Your task to perform on an android device: turn off translation in the chrome app Image 0: 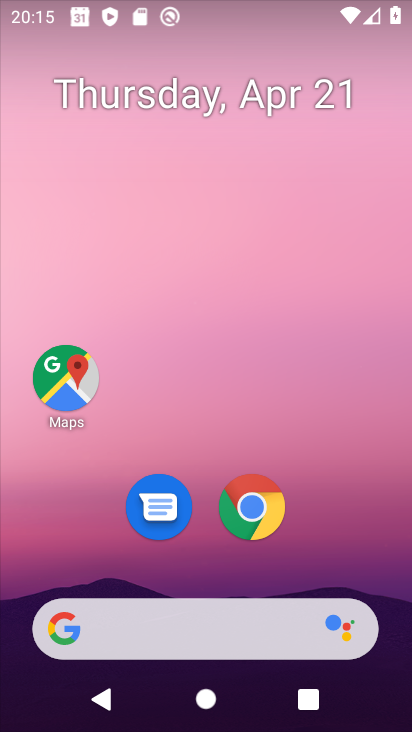
Step 0: click (265, 498)
Your task to perform on an android device: turn off translation in the chrome app Image 1: 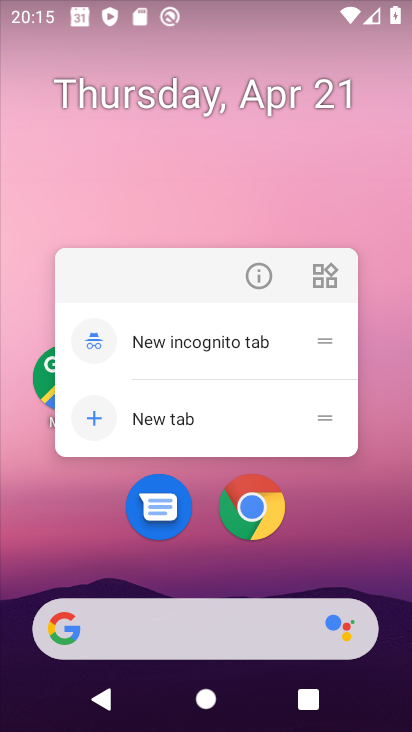
Step 1: click (263, 507)
Your task to perform on an android device: turn off translation in the chrome app Image 2: 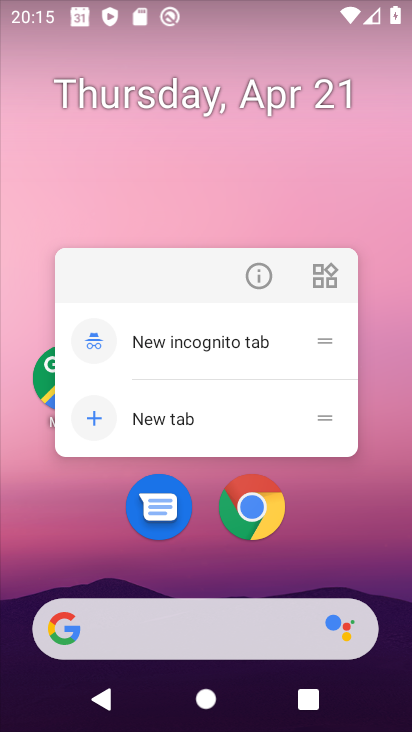
Step 2: click (256, 506)
Your task to perform on an android device: turn off translation in the chrome app Image 3: 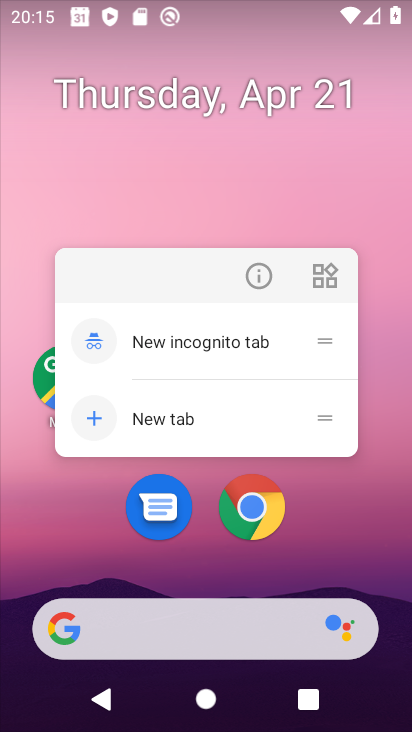
Step 3: click (250, 505)
Your task to perform on an android device: turn off translation in the chrome app Image 4: 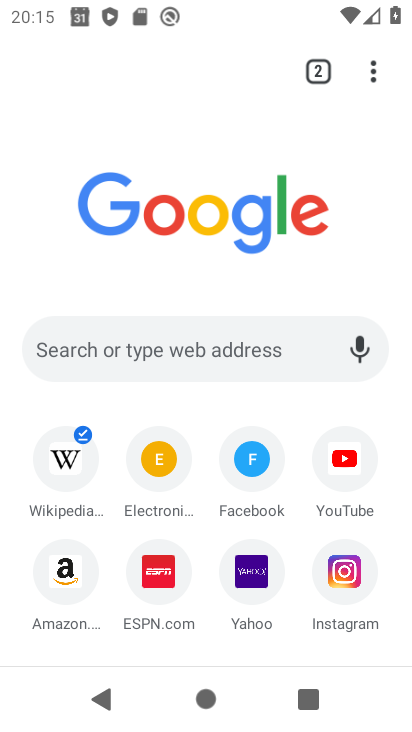
Step 4: click (373, 76)
Your task to perform on an android device: turn off translation in the chrome app Image 5: 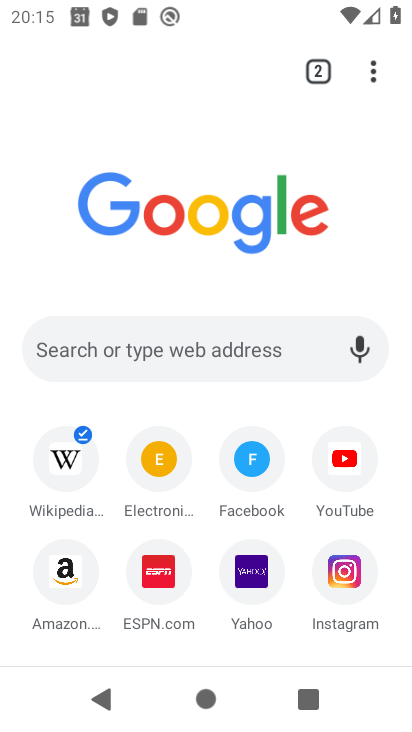
Step 5: drag from (375, 59) to (145, 497)
Your task to perform on an android device: turn off translation in the chrome app Image 6: 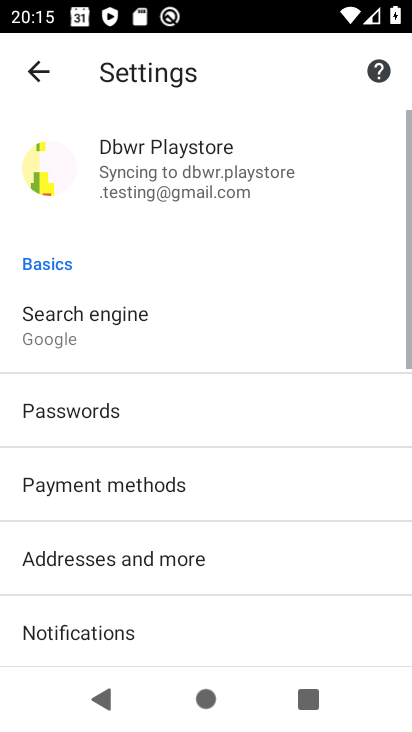
Step 6: drag from (131, 576) to (229, 98)
Your task to perform on an android device: turn off translation in the chrome app Image 7: 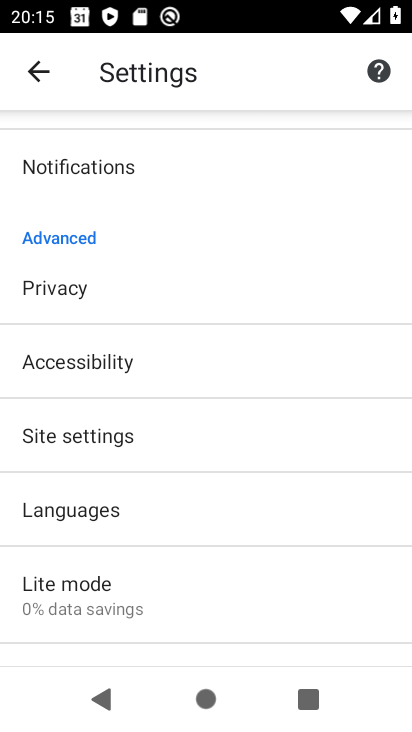
Step 7: click (92, 520)
Your task to perform on an android device: turn off translation in the chrome app Image 8: 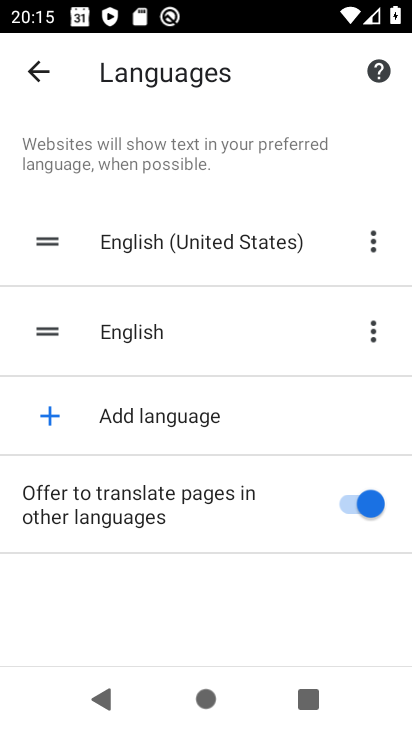
Step 8: click (364, 504)
Your task to perform on an android device: turn off translation in the chrome app Image 9: 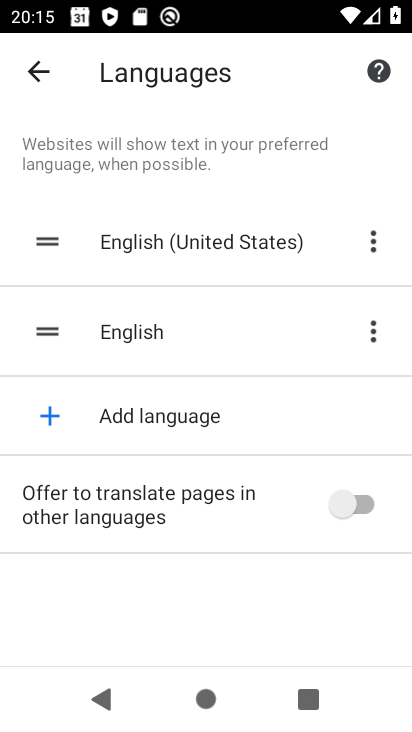
Step 9: task complete